Your task to perform on an android device: turn notification dots on Image 0: 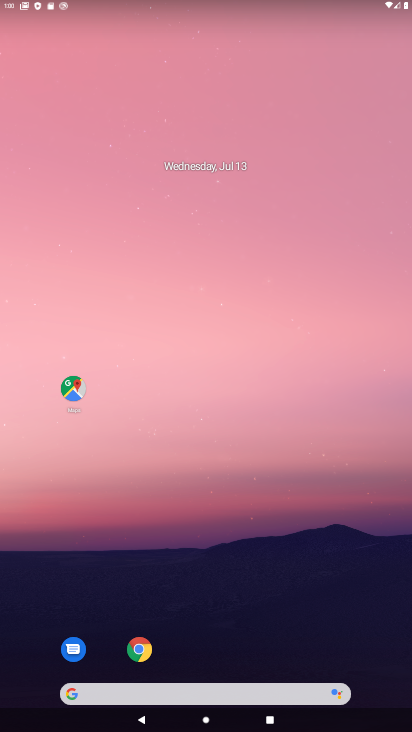
Step 0: drag from (220, 605) to (253, 24)
Your task to perform on an android device: turn notification dots on Image 1: 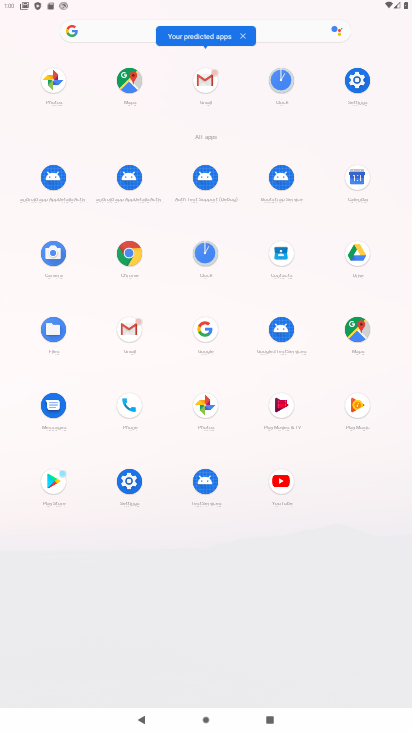
Step 1: click (365, 76)
Your task to perform on an android device: turn notification dots on Image 2: 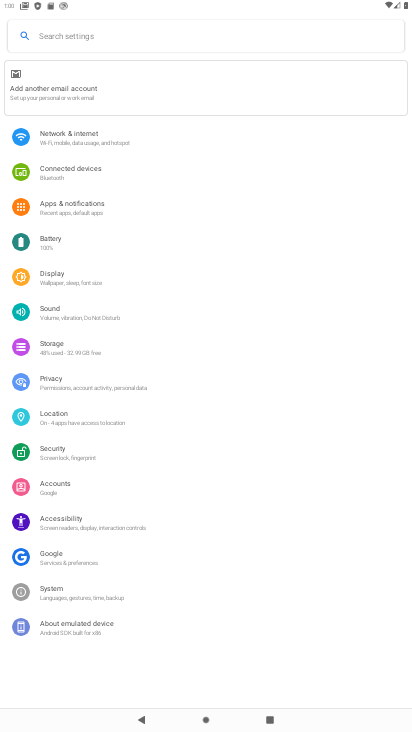
Step 2: click (83, 210)
Your task to perform on an android device: turn notification dots on Image 3: 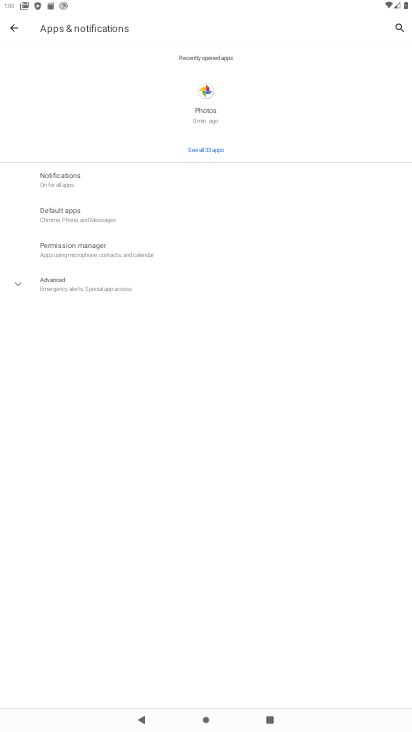
Step 3: click (98, 269)
Your task to perform on an android device: turn notification dots on Image 4: 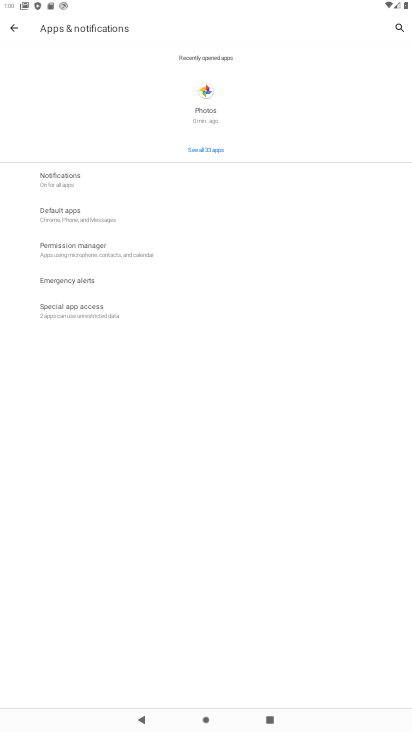
Step 4: click (226, 176)
Your task to perform on an android device: turn notification dots on Image 5: 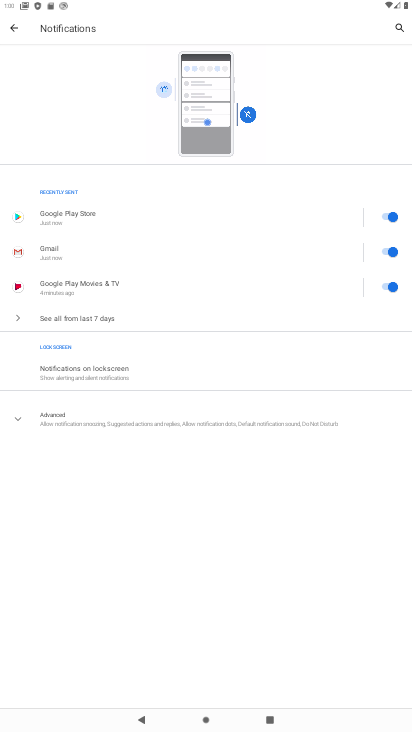
Step 5: click (288, 431)
Your task to perform on an android device: turn notification dots on Image 6: 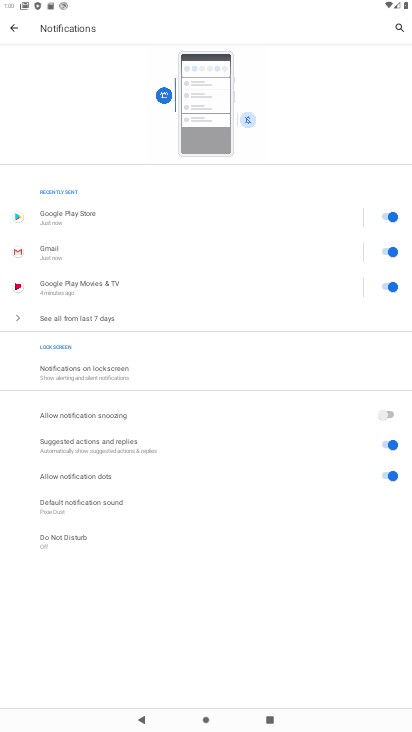
Step 6: task complete